Your task to perform on an android device: Turn on the flashlight Image 0: 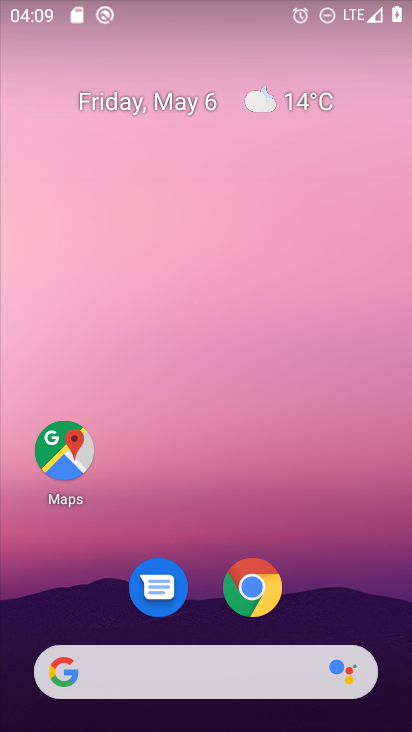
Step 0: drag from (200, 2) to (177, 481)
Your task to perform on an android device: Turn on the flashlight Image 1: 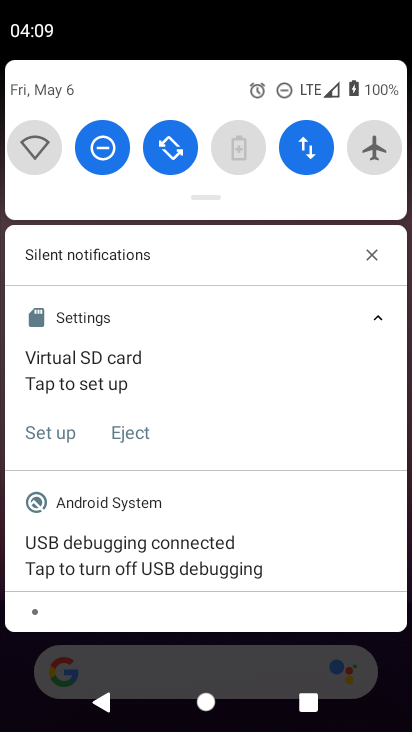
Step 1: task complete